Your task to perform on an android device: search for starred emails in the gmail app Image 0: 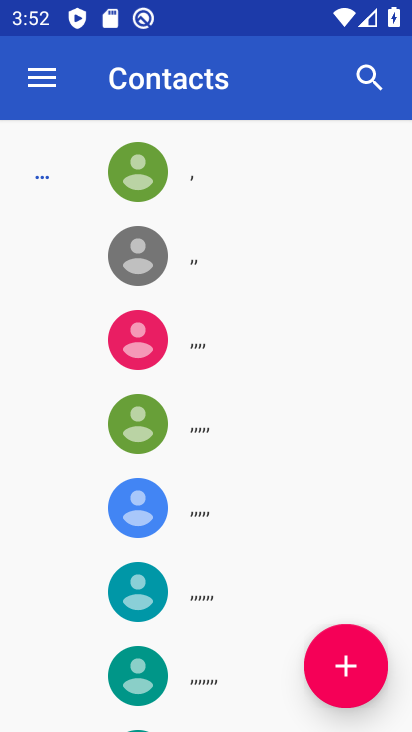
Step 0: press home button
Your task to perform on an android device: search for starred emails in the gmail app Image 1: 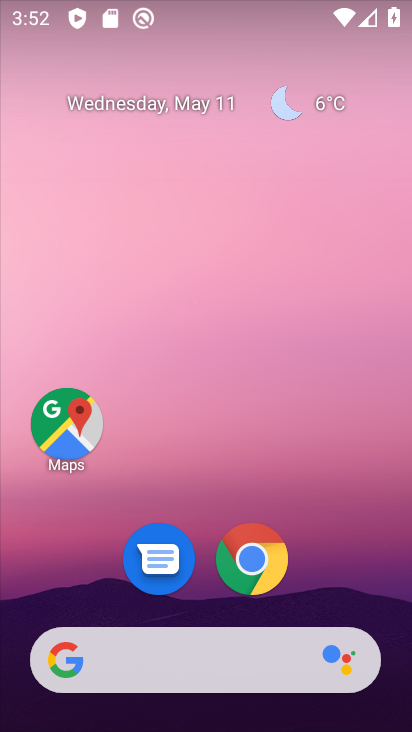
Step 1: drag from (347, 558) to (375, 84)
Your task to perform on an android device: search for starred emails in the gmail app Image 2: 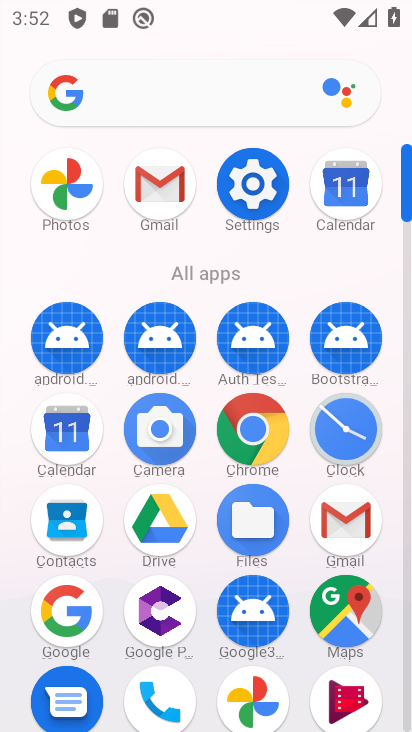
Step 2: click (151, 190)
Your task to perform on an android device: search for starred emails in the gmail app Image 3: 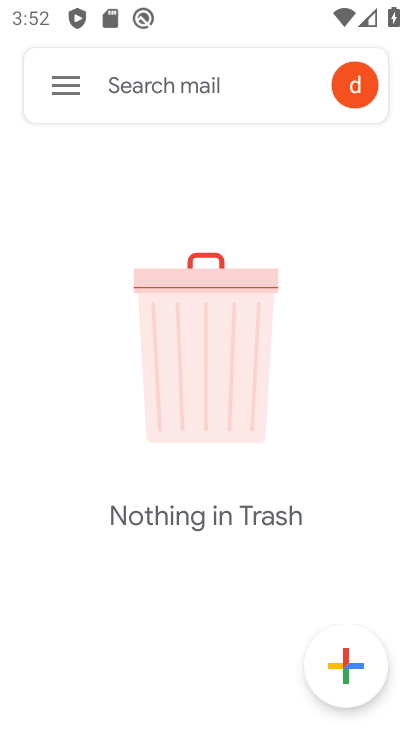
Step 3: click (57, 103)
Your task to perform on an android device: search for starred emails in the gmail app Image 4: 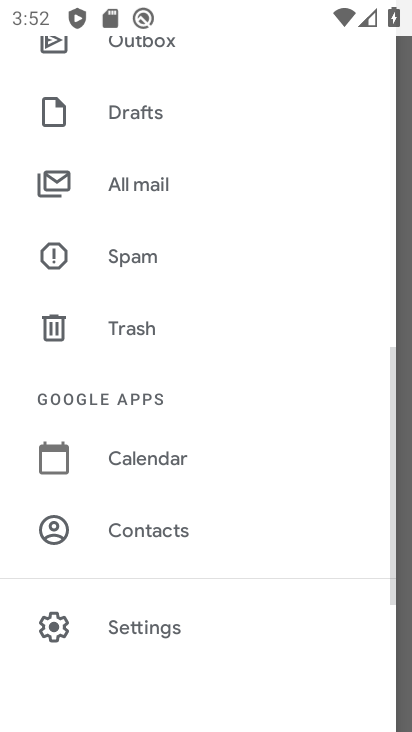
Step 4: drag from (176, 385) to (153, 688)
Your task to perform on an android device: search for starred emails in the gmail app Image 5: 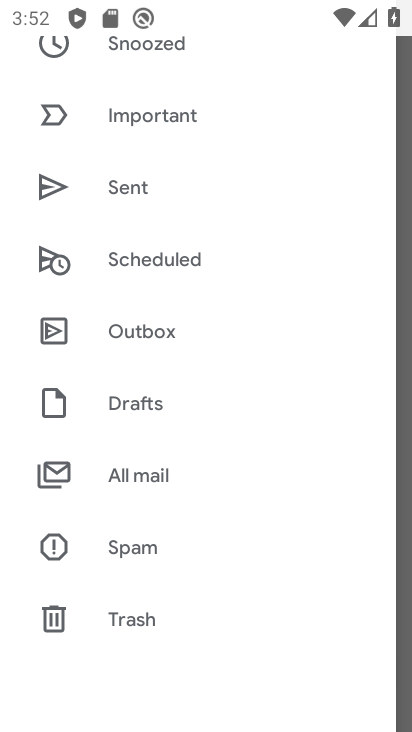
Step 5: drag from (307, 242) to (277, 621)
Your task to perform on an android device: search for starred emails in the gmail app Image 6: 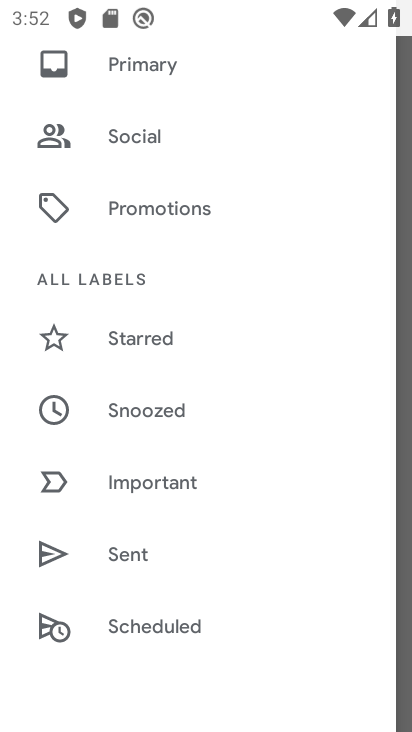
Step 6: click (162, 344)
Your task to perform on an android device: search for starred emails in the gmail app Image 7: 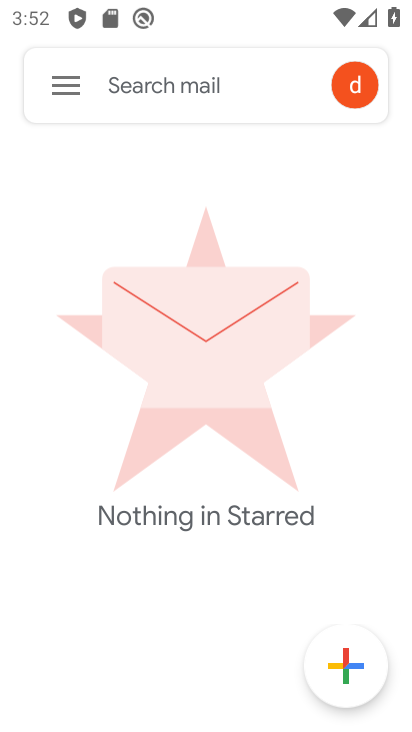
Step 7: task complete